Your task to perform on an android device: Open Chrome and go to the settings page Image 0: 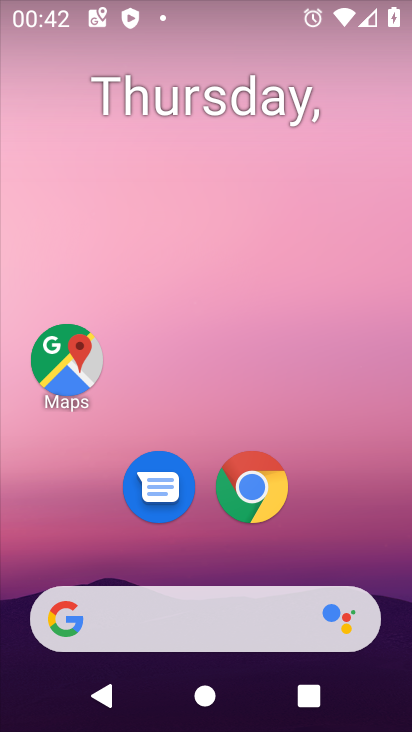
Step 0: click (255, 482)
Your task to perform on an android device: Open Chrome and go to the settings page Image 1: 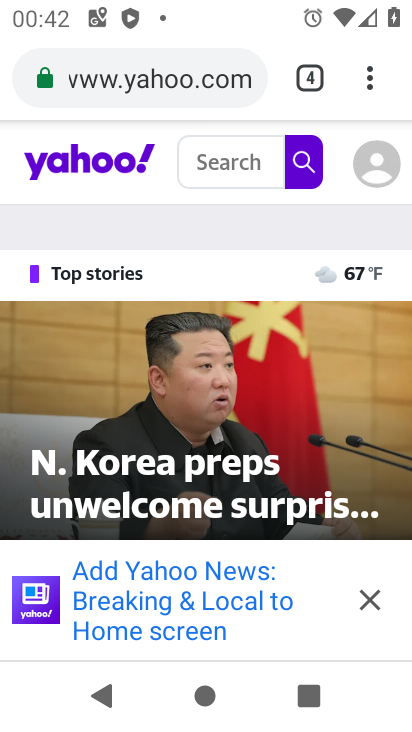
Step 1: click (374, 72)
Your task to perform on an android device: Open Chrome and go to the settings page Image 2: 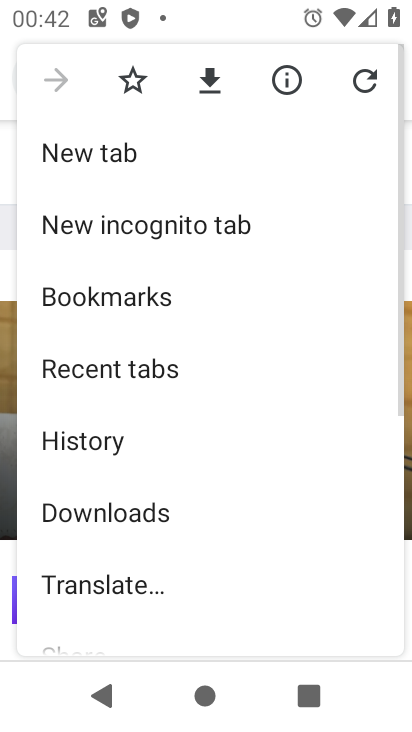
Step 2: drag from (244, 513) to (240, 94)
Your task to perform on an android device: Open Chrome and go to the settings page Image 3: 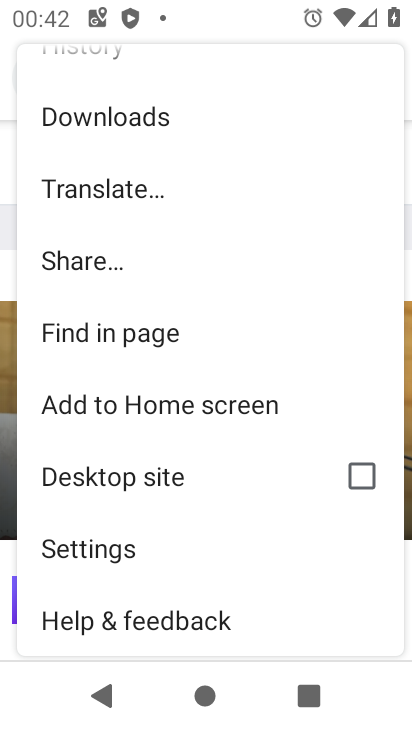
Step 3: click (85, 555)
Your task to perform on an android device: Open Chrome and go to the settings page Image 4: 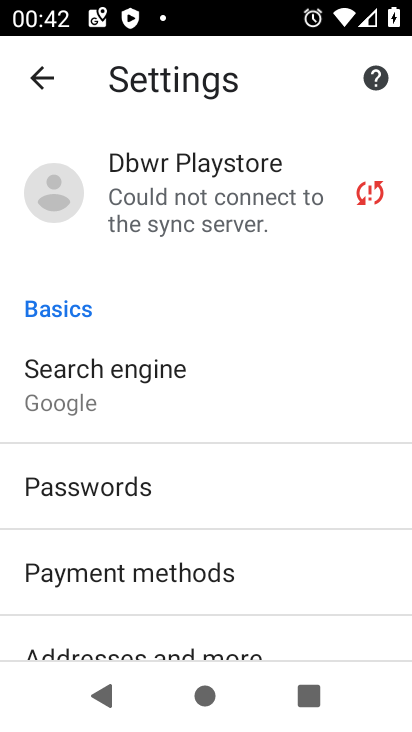
Step 4: task complete